Your task to perform on an android device: Search for razer thresher on newegg, select the first entry, add it to the cart, then select checkout. Image 0: 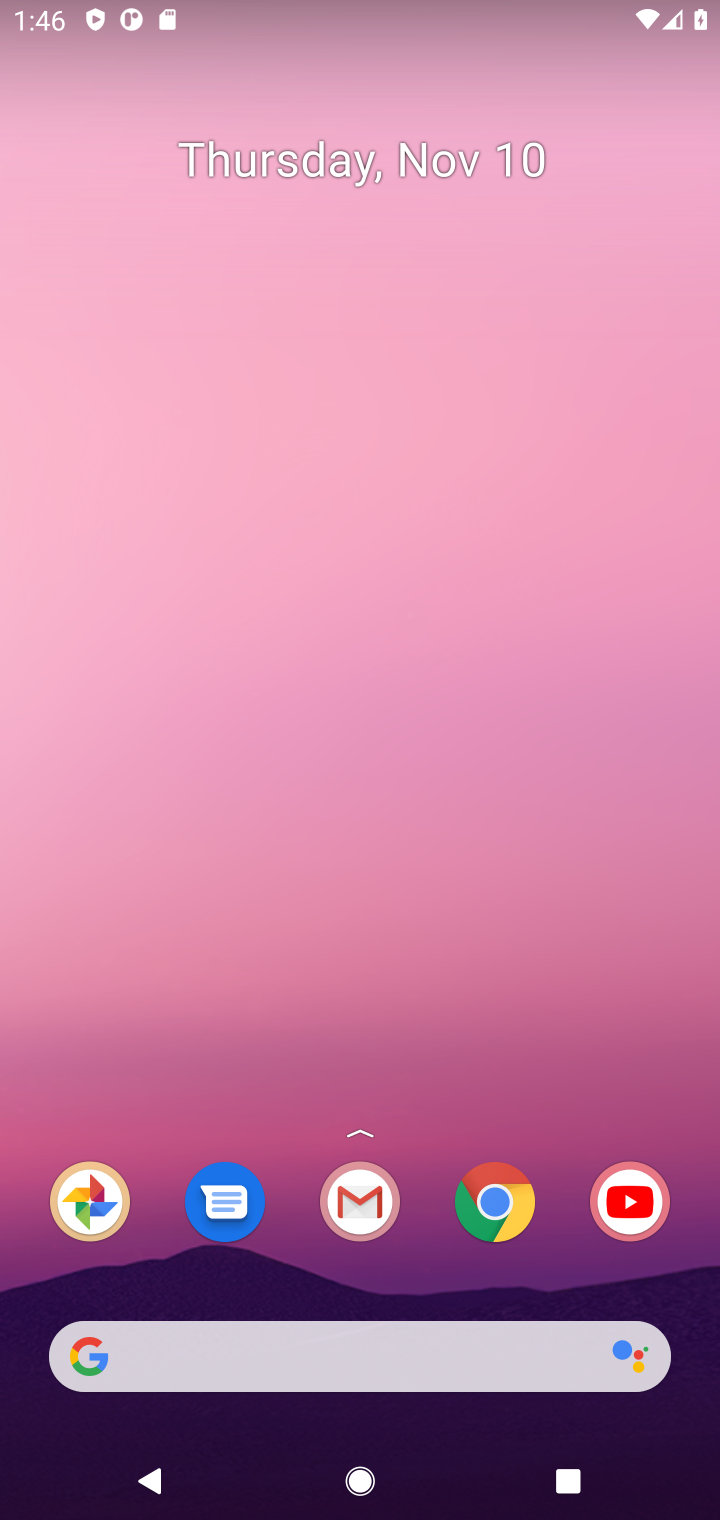
Step 0: click (489, 1204)
Your task to perform on an android device: Search for razer thresher on newegg, select the first entry, add it to the cart, then select checkout. Image 1: 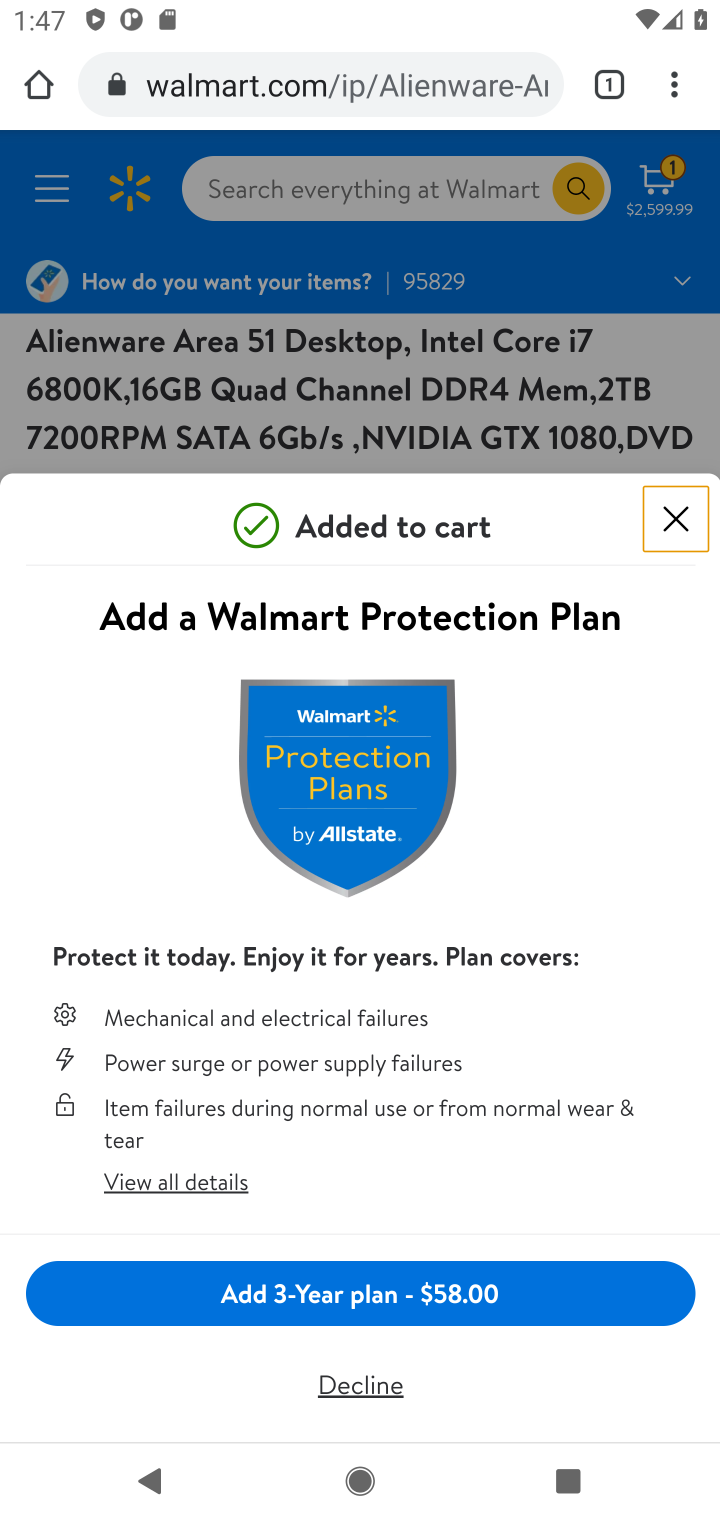
Step 1: click (221, 86)
Your task to perform on an android device: Search for razer thresher on newegg, select the first entry, add it to the cart, then select checkout. Image 2: 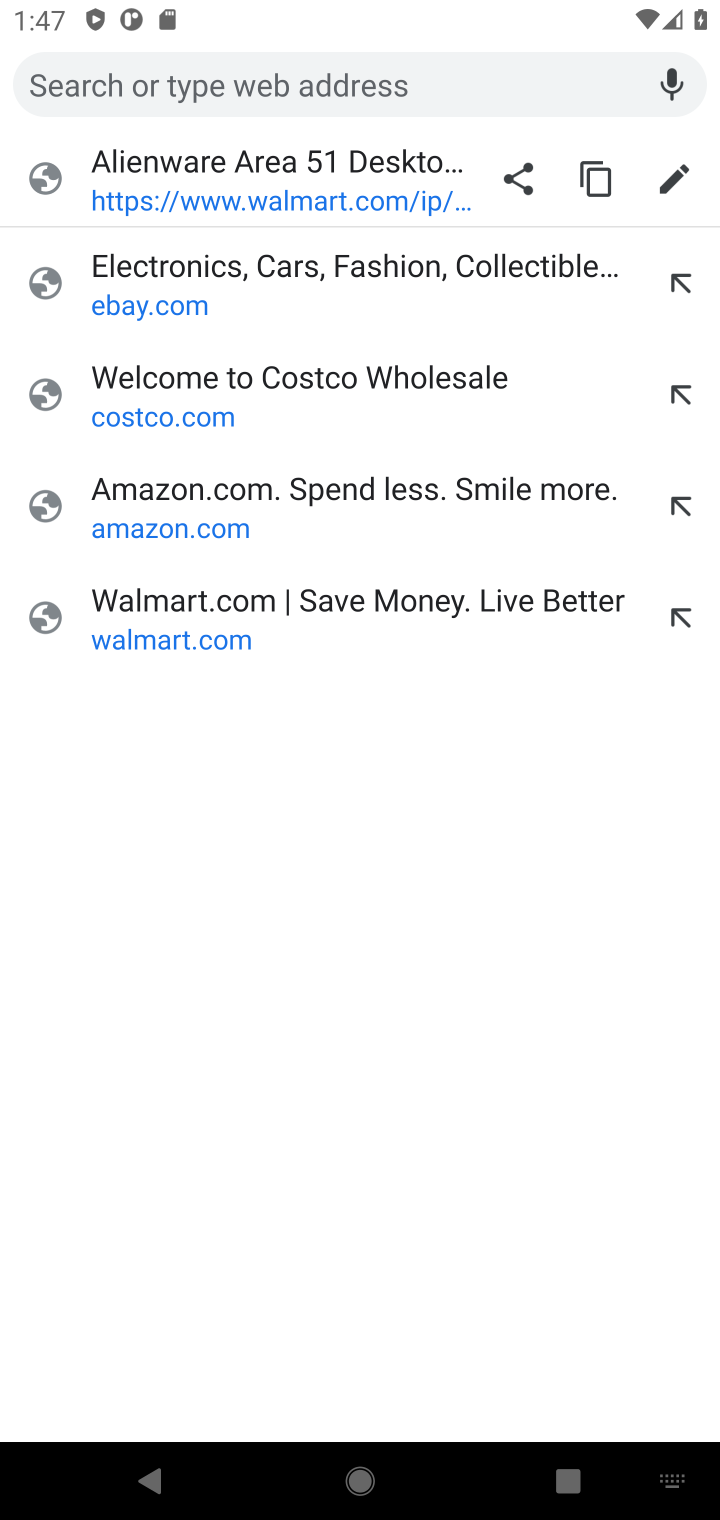
Step 2: type "newegg"
Your task to perform on an android device: Search for razer thresher on newegg, select the first entry, add it to the cart, then select checkout. Image 3: 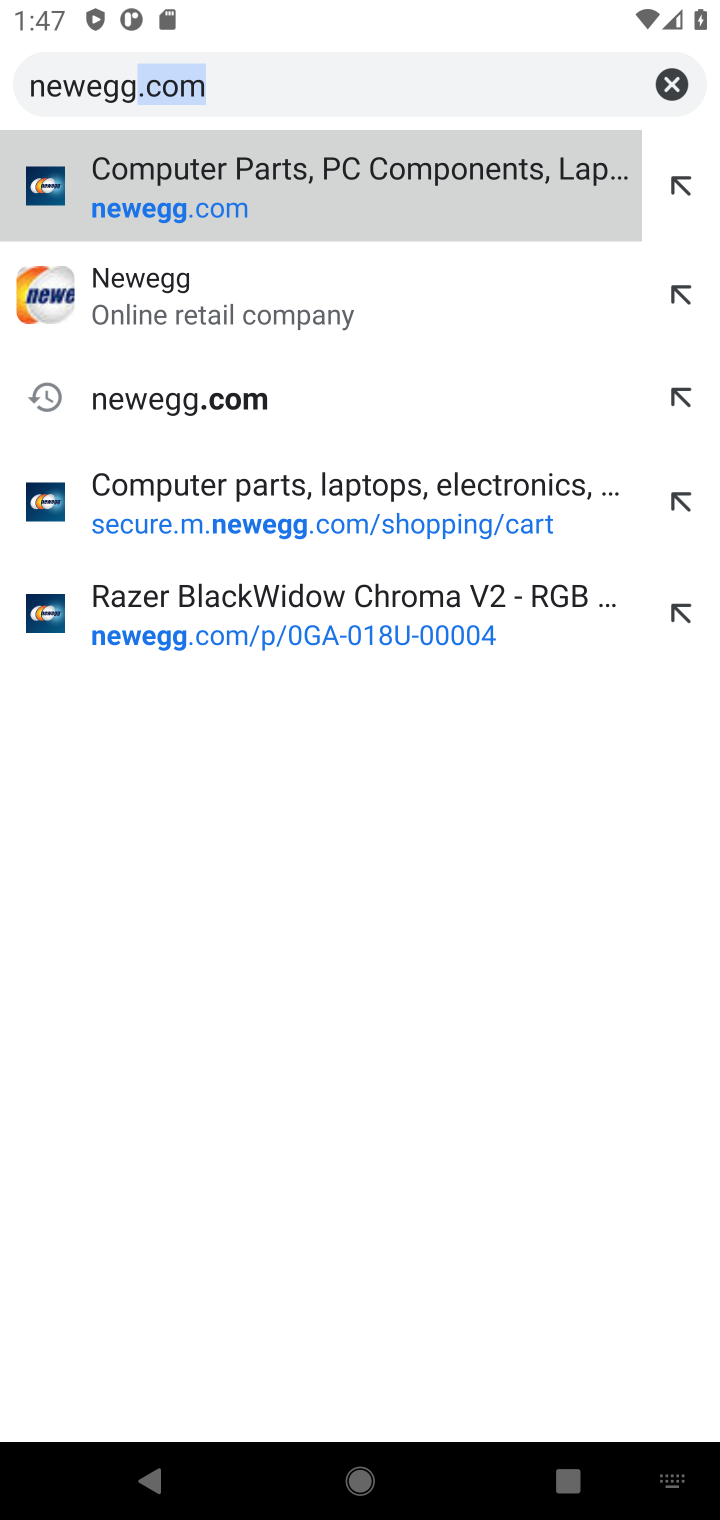
Step 3: click (432, 99)
Your task to perform on an android device: Search for razer thresher on newegg, select the first entry, add it to the cart, then select checkout. Image 4: 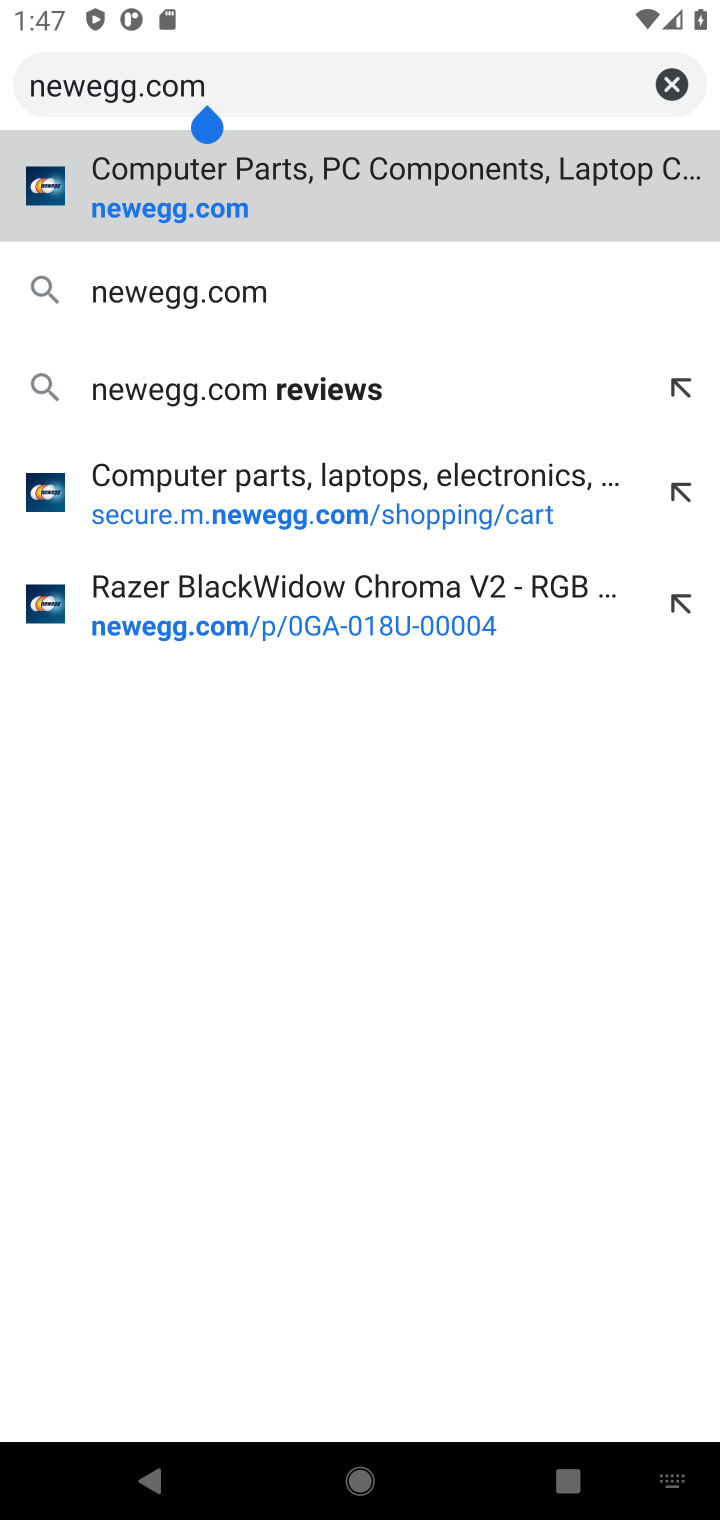
Step 4: click (138, 285)
Your task to perform on an android device: Search for razer thresher on newegg, select the first entry, add it to the cart, then select checkout. Image 5: 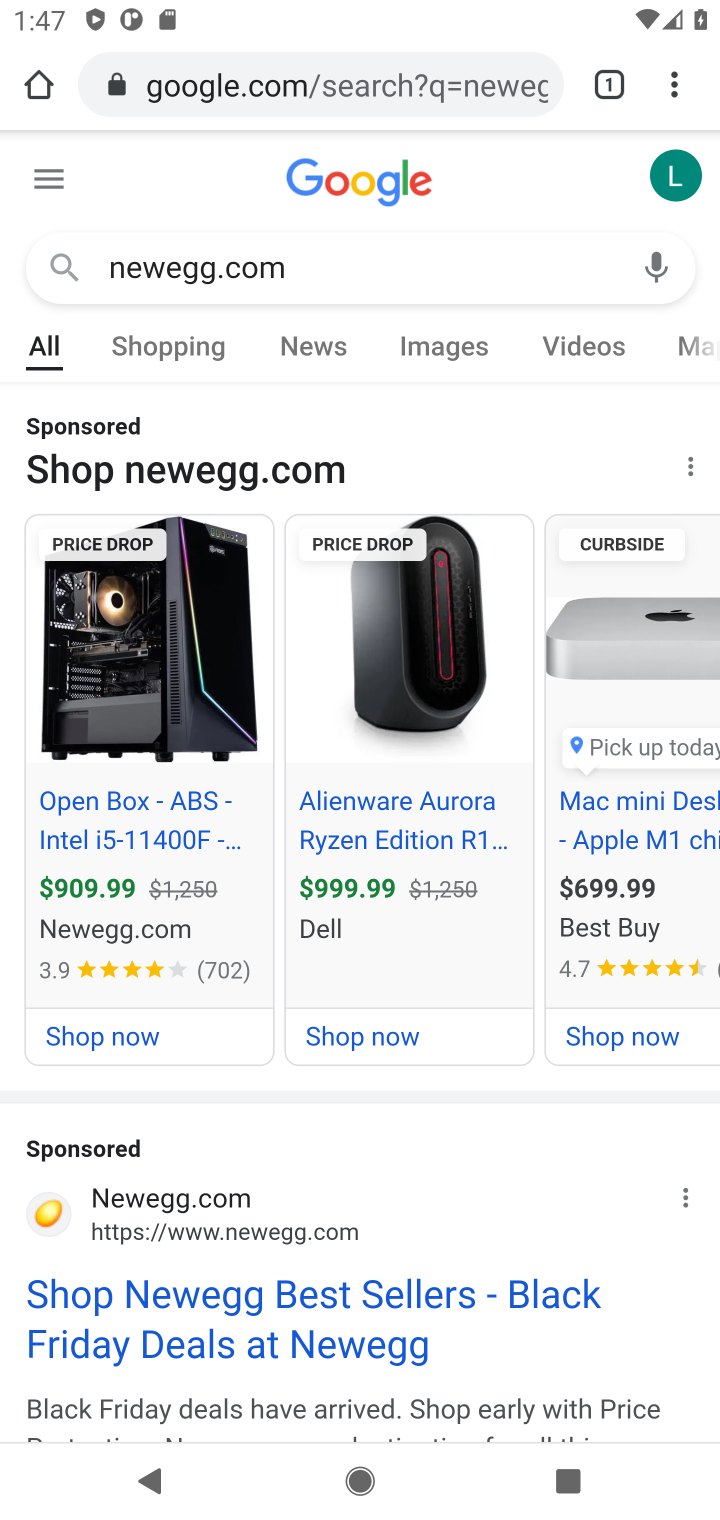
Step 5: click (290, 1229)
Your task to perform on an android device: Search for razer thresher on newegg, select the first entry, add it to the cart, then select checkout. Image 6: 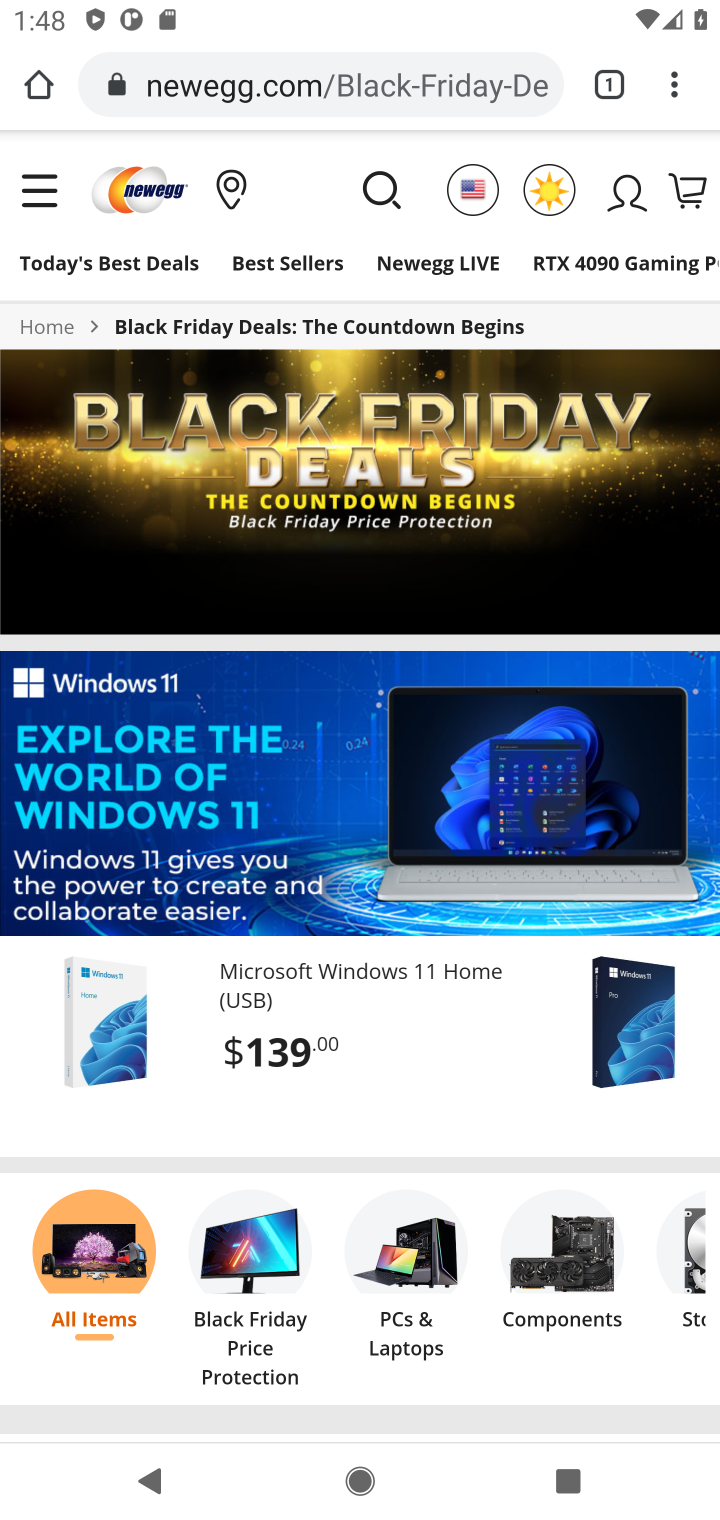
Step 6: click (380, 197)
Your task to perform on an android device: Search for razer thresher on newegg, select the first entry, add it to the cart, then select checkout. Image 7: 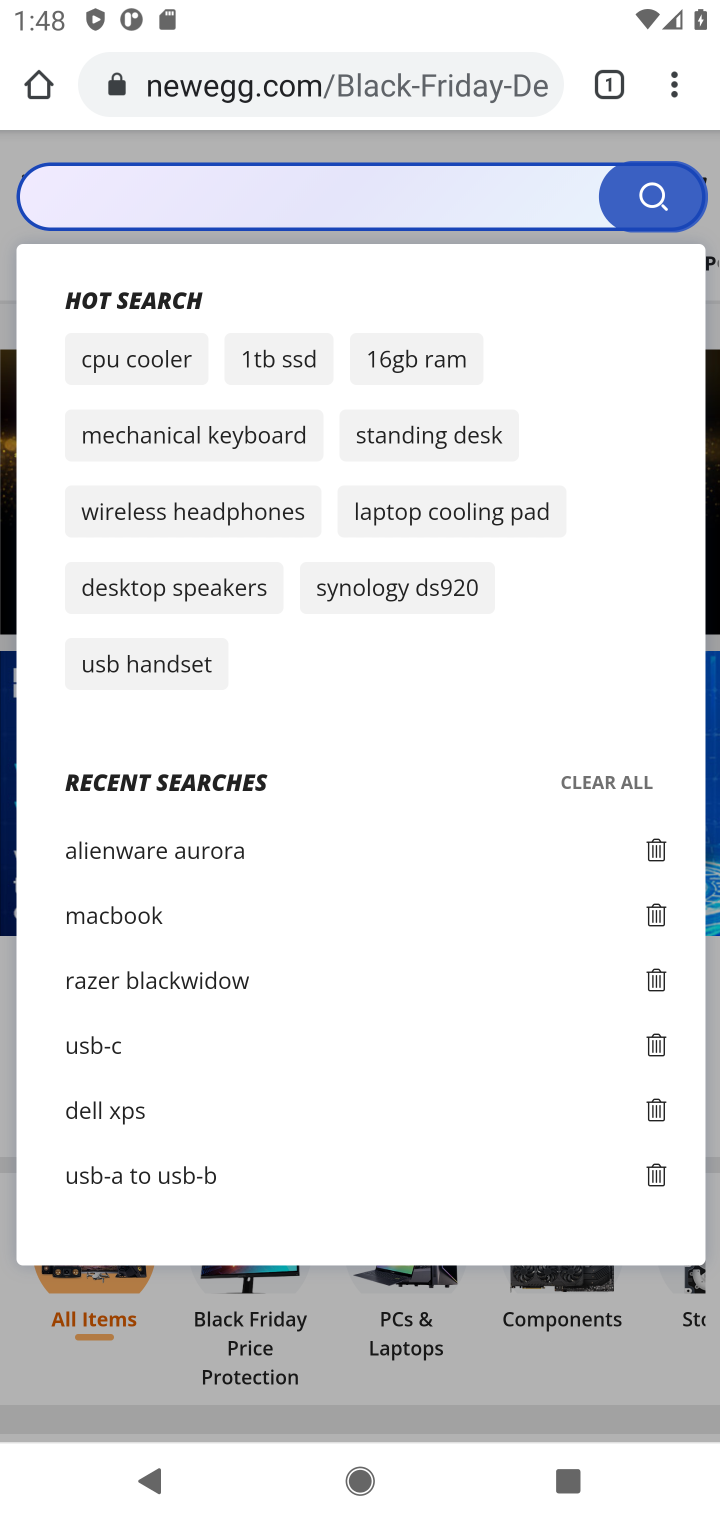
Step 7: click (472, 194)
Your task to perform on an android device: Search for razer thresher on newegg, select the first entry, add it to the cart, then select checkout. Image 8: 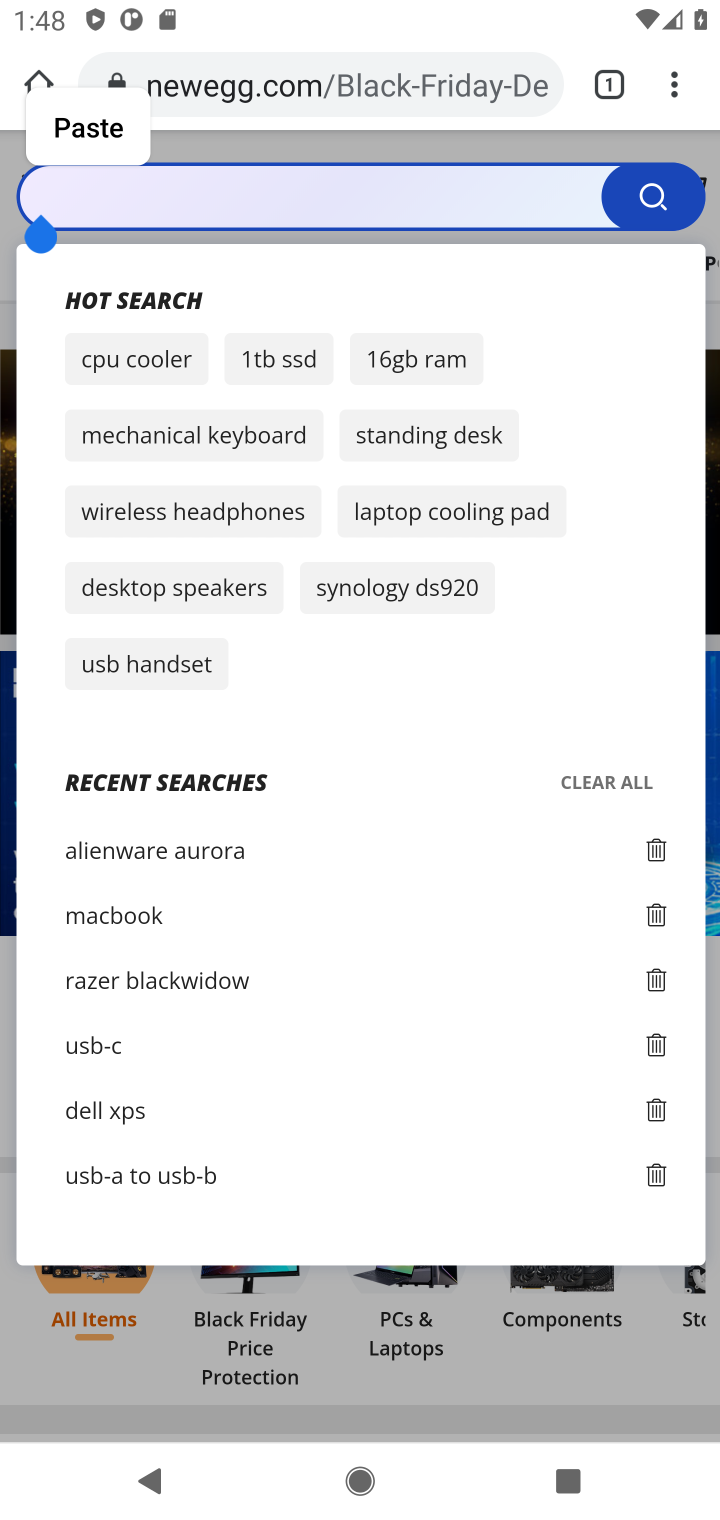
Step 8: type "razer thresher "
Your task to perform on an android device: Search for razer thresher on newegg, select the first entry, add it to the cart, then select checkout. Image 9: 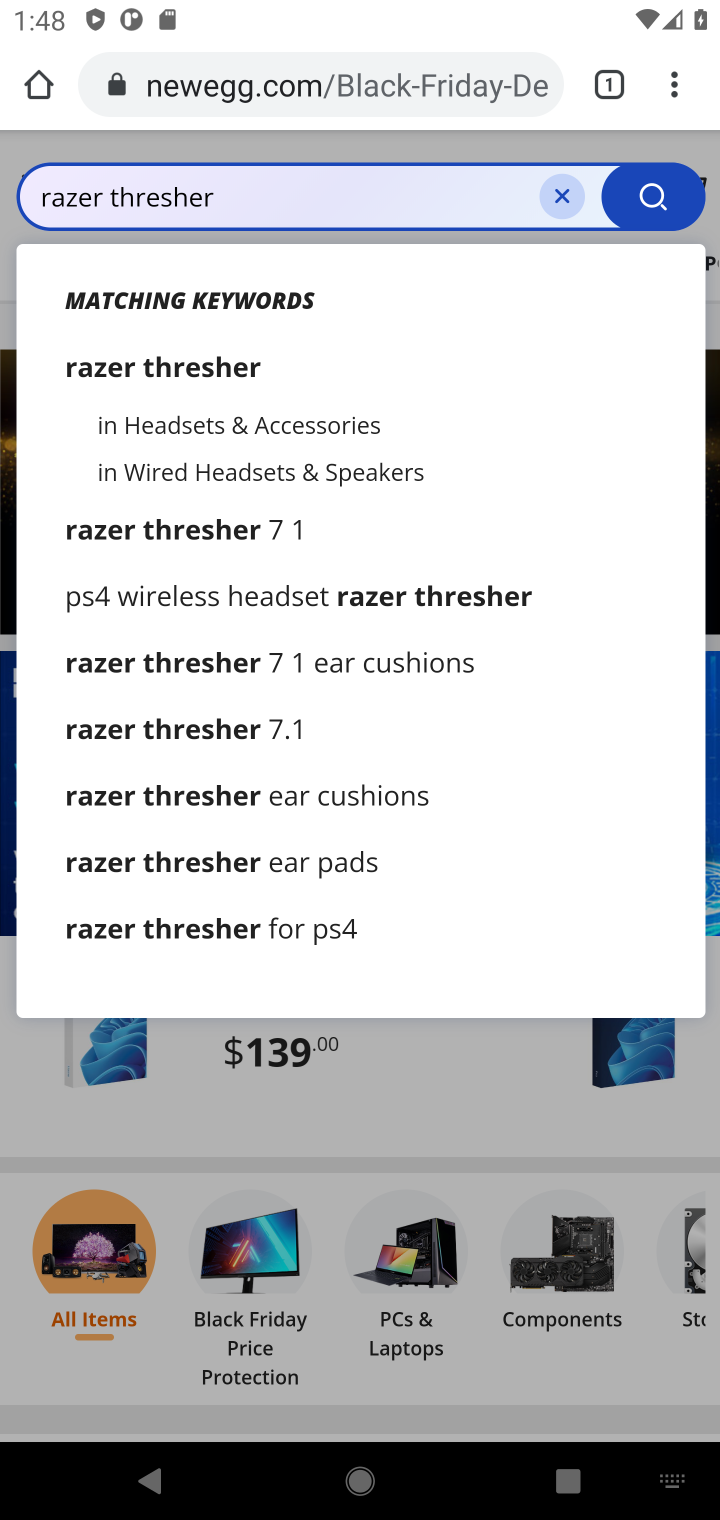
Step 9: click (224, 360)
Your task to perform on an android device: Search for razer thresher on newegg, select the first entry, add it to the cart, then select checkout. Image 10: 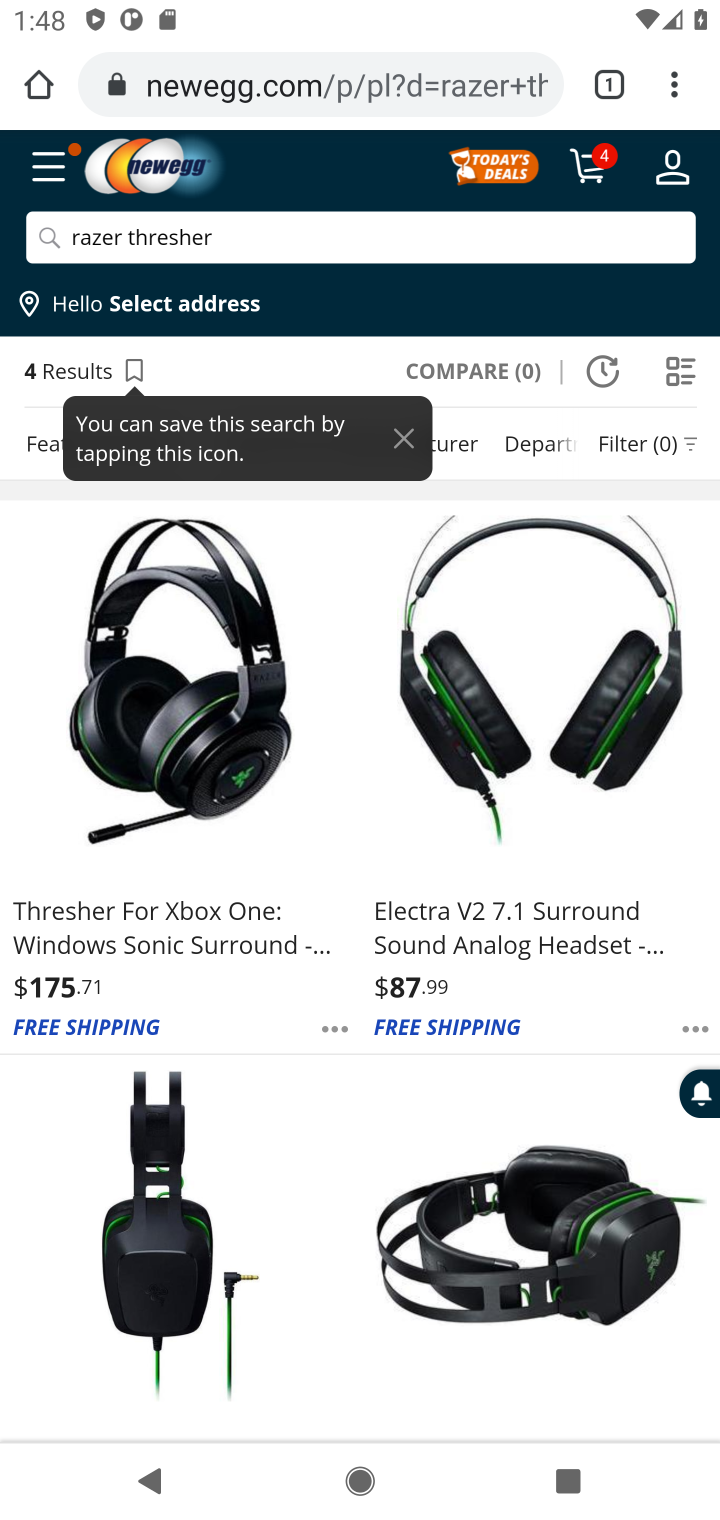
Step 10: task complete